Your task to perform on an android device: Show me the alarms in the clock app Image 0: 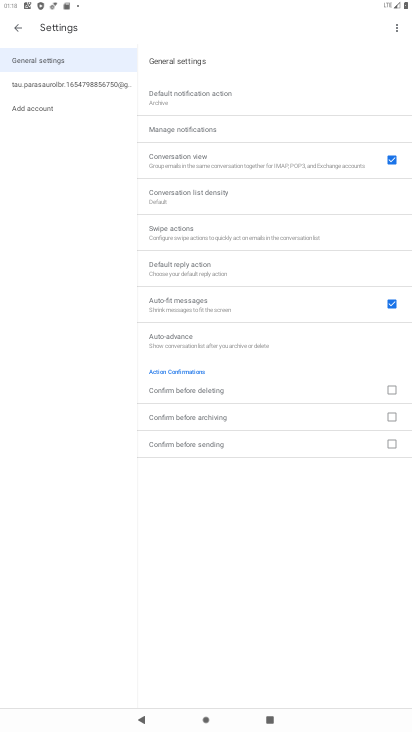
Step 0: press back button
Your task to perform on an android device: Show me the alarms in the clock app Image 1: 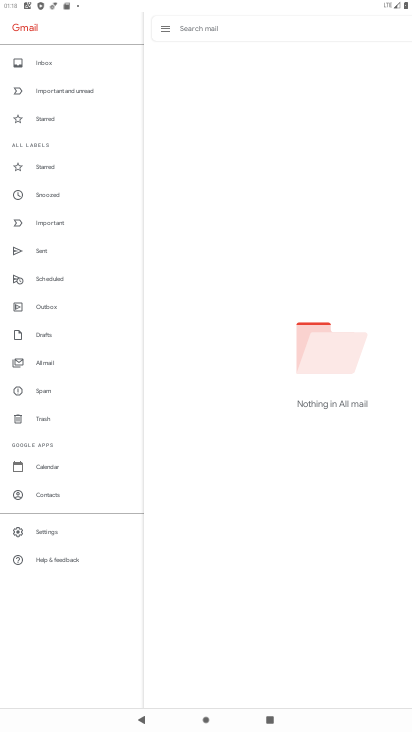
Step 1: press home button
Your task to perform on an android device: Show me the alarms in the clock app Image 2: 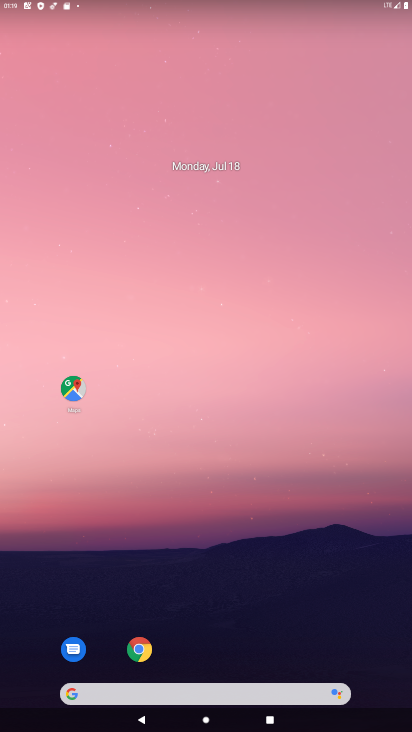
Step 2: drag from (175, 636) to (279, 42)
Your task to perform on an android device: Show me the alarms in the clock app Image 3: 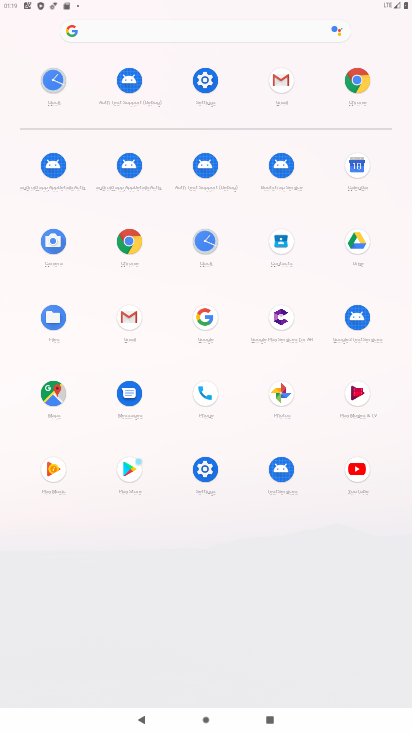
Step 3: click (202, 239)
Your task to perform on an android device: Show me the alarms in the clock app Image 4: 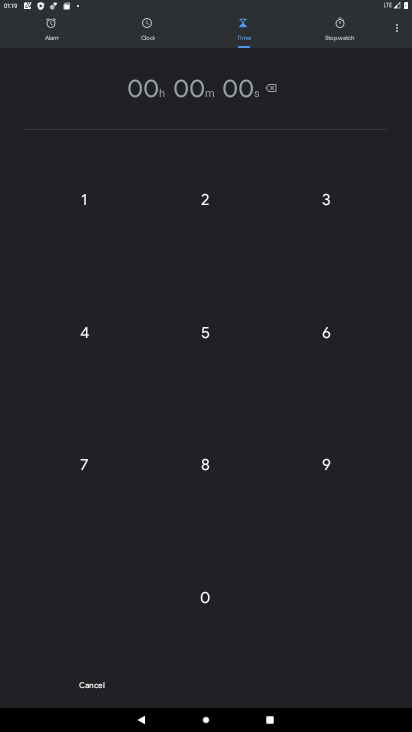
Step 4: click (52, 28)
Your task to perform on an android device: Show me the alarms in the clock app Image 5: 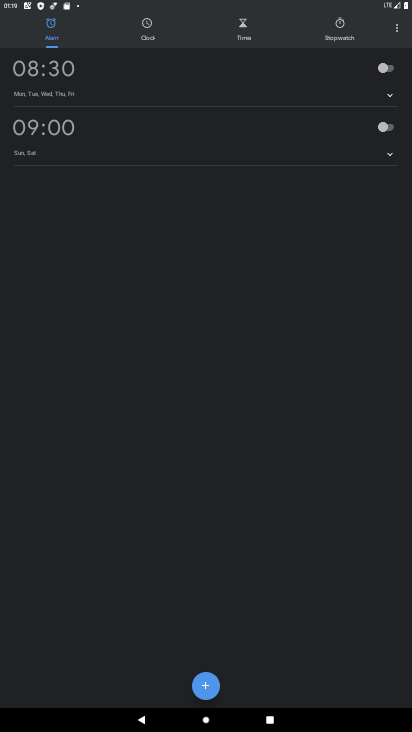
Step 5: task complete